Your task to perform on an android device: turn on the 24-hour format for clock Image 0: 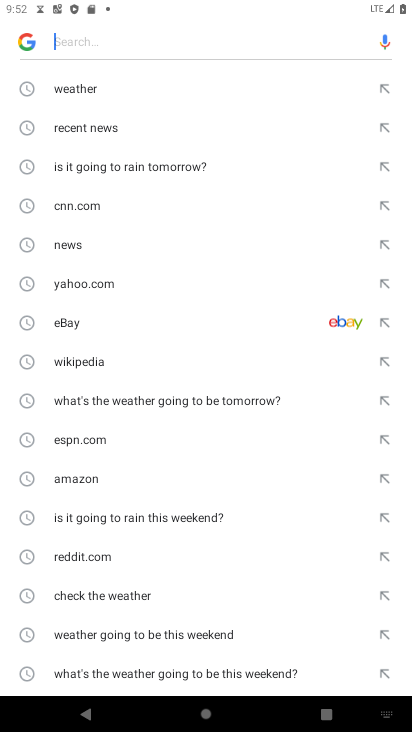
Step 0: press home button
Your task to perform on an android device: turn on the 24-hour format for clock Image 1: 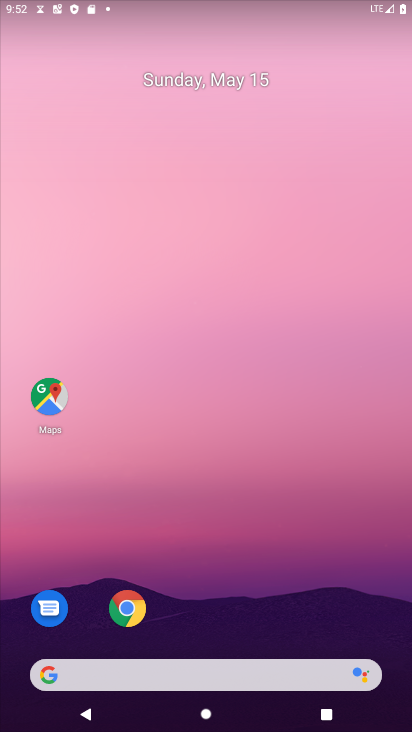
Step 1: press home button
Your task to perform on an android device: turn on the 24-hour format for clock Image 2: 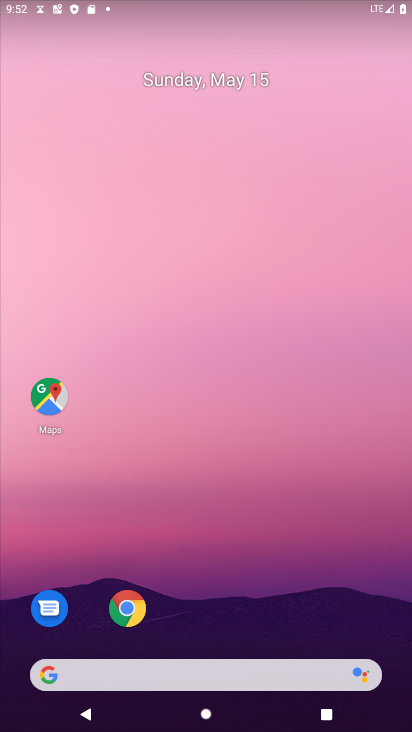
Step 2: click (269, 537)
Your task to perform on an android device: turn on the 24-hour format for clock Image 3: 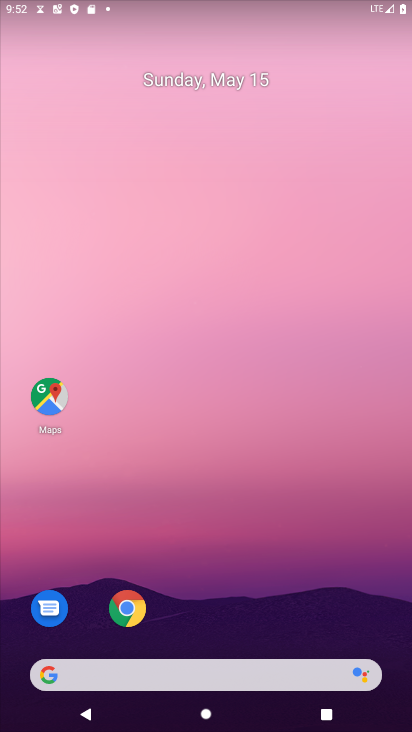
Step 3: drag from (271, 570) to (211, 96)
Your task to perform on an android device: turn on the 24-hour format for clock Image 4: 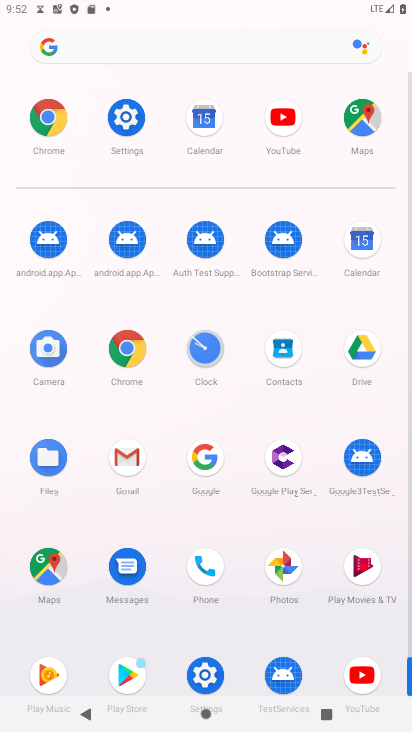
Step 4: click (225, 348)
Your task to perform on an android device: turn on the 24-hour format for clock Image 5: 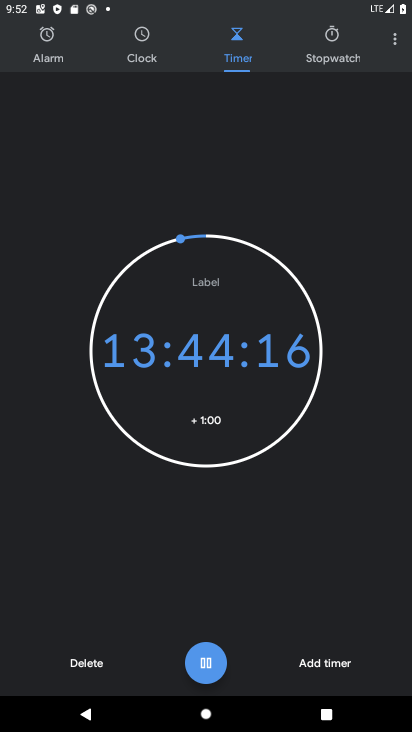
Step 5: click (391, 41)
Your task to perform on an android device: turn on the 24-hour format for clock Image 6: 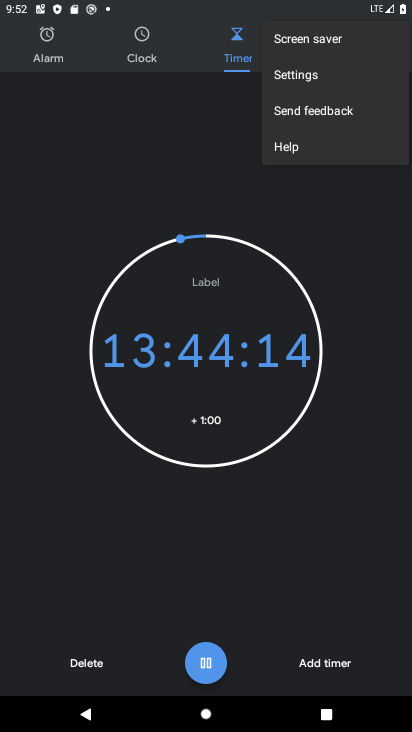
Step 6: click (300, 87)
Your task to perform on an android device: turn on the 24-hour format for clock Image 7: 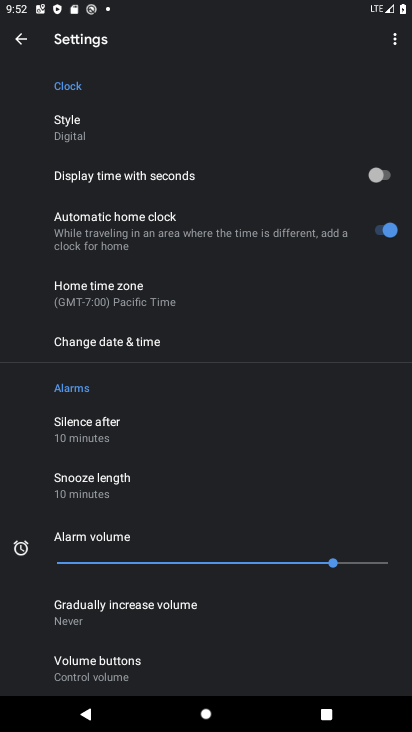
Step 7: click (111, 333)
Your task to perform on an android device: turn on the 24-hour format for clock Image 8: 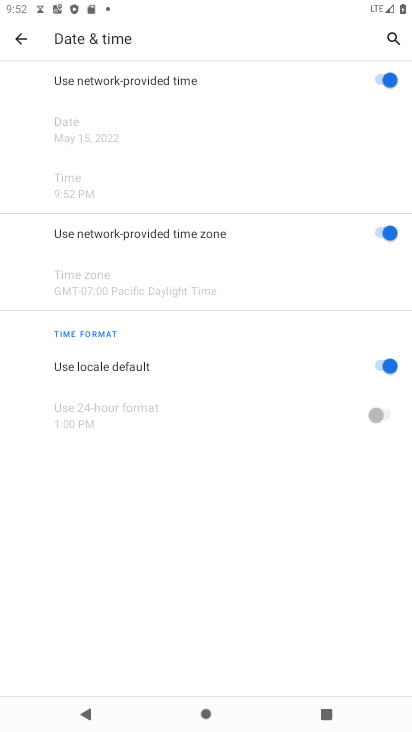
Step 8: click (395, 356)
Your task to perform on an android device: turn on the 24-hour format for clock Image 9: 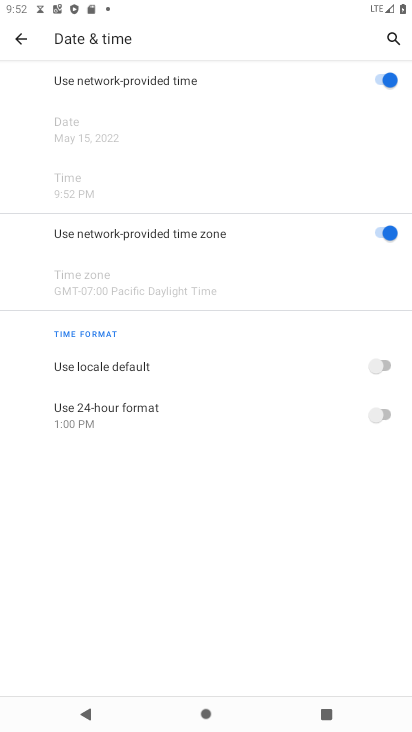
Step 9: task complete